Your task to perform on an android device: see sites visited before in the chrome app Image 0: 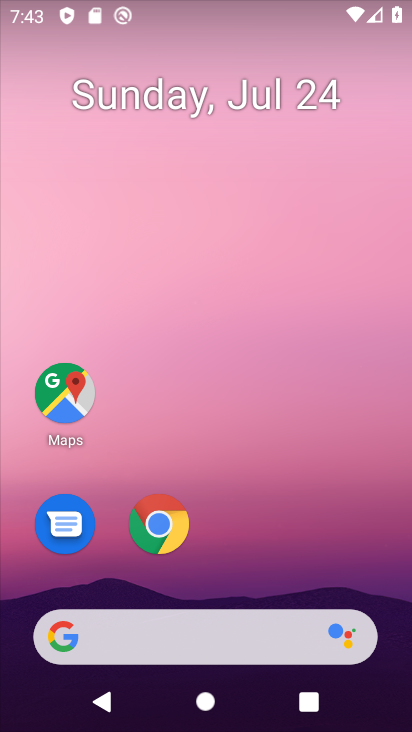
Step 0: click (159, 522)
Your task to perform on an android device: see sites visited before in the chrome app Image 1: 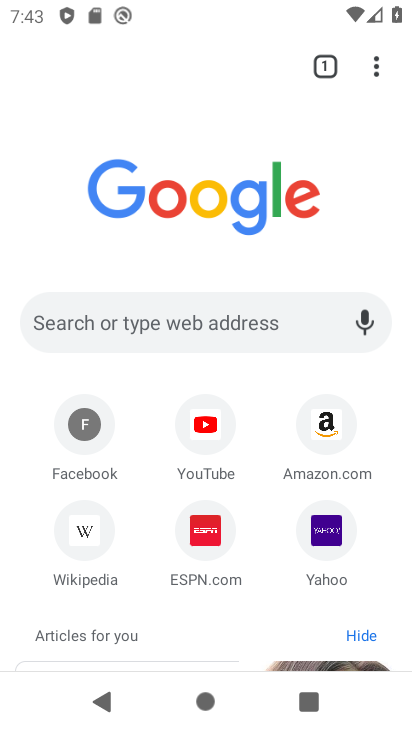
Step 1: click (379, 70)
Your task to perform on an android device: see sites visited before in the chrome app Image 2: 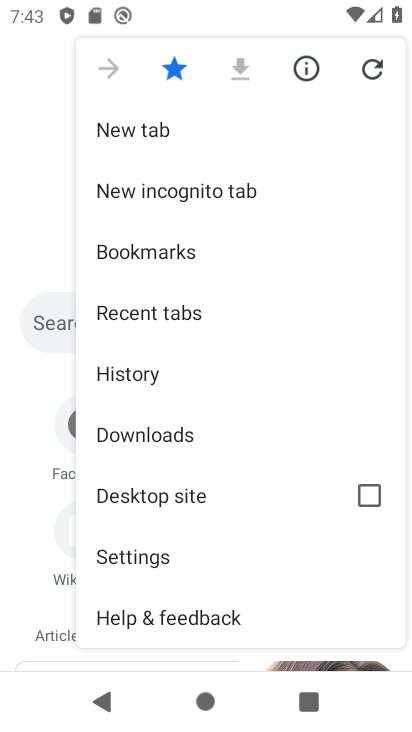
Step 2: click (152, 308)
Your task to perform on an android device: see sites visited before in the chrome app Image 3: 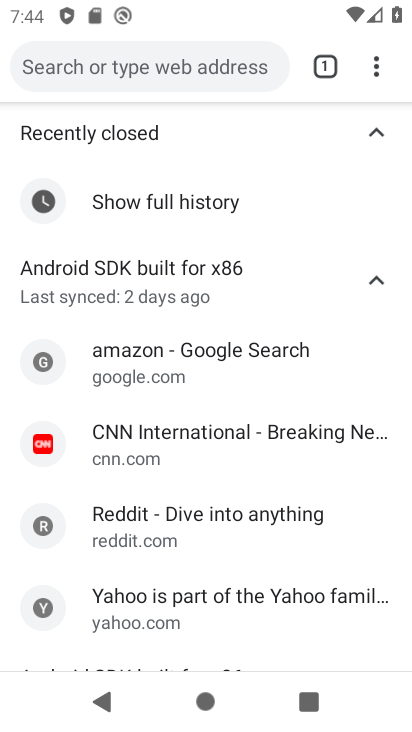
Step 3: click (218, 202)
Your task to perform on an android device: see sites visited before in the chrome app Image 4: 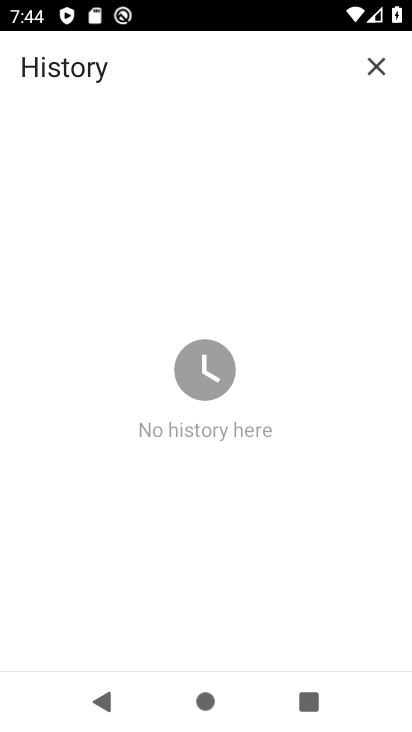
Step 4: click (377, 65)
Your task to perform on an android device: see sites visited before in the chrome app Image 5: 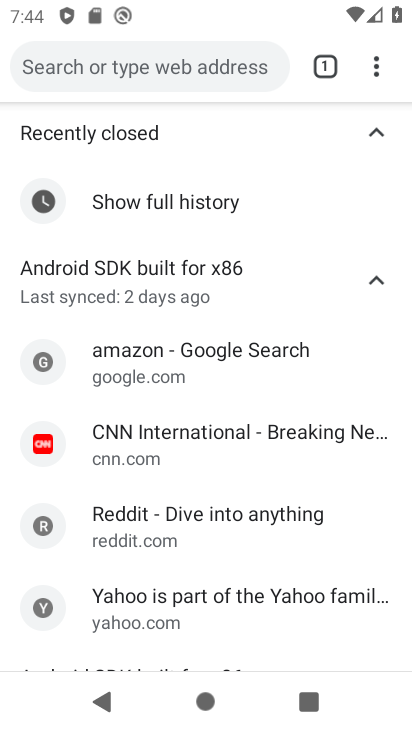
Step 5: task complete